Your task to perform on an android device: turn off translation in the chrome app Image 0: 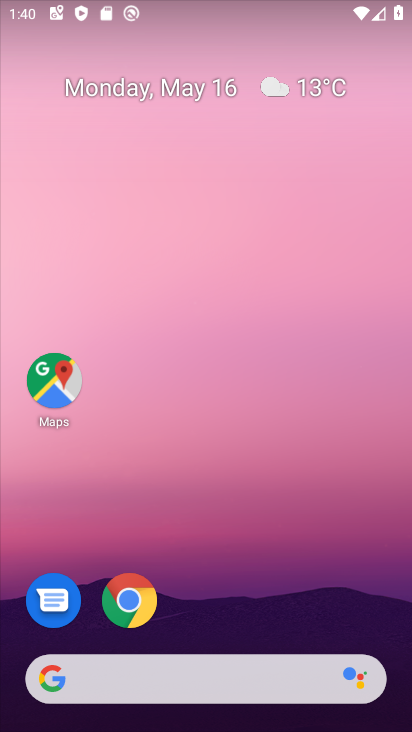
Step 0: click (128, 599)
Your task to perform on an android device: turn off translation in the chrome app Image 1: 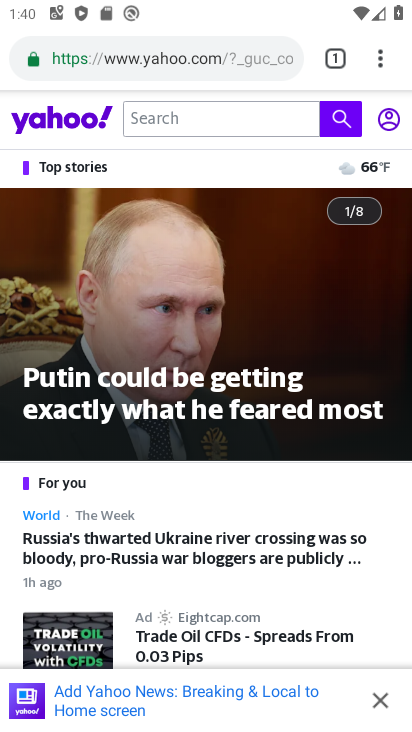
Step 1: click (380, 77)
Your task to perform on an android device: turn off translation in the chrome app Image 2: 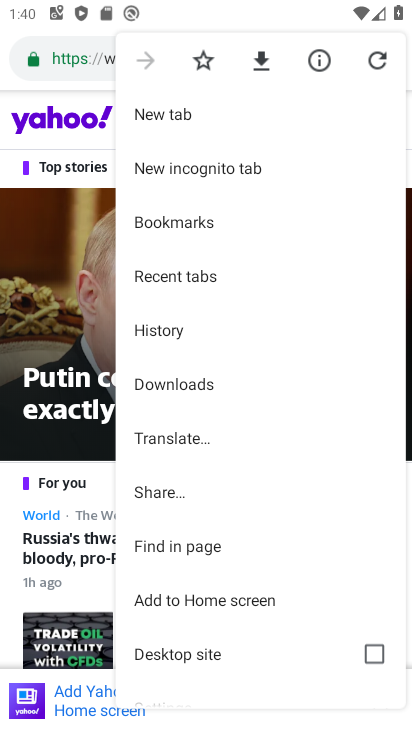
Step 2: drag from (284, 681) to (312, 379)
Your task to perform on an android device: turn off translation in the chrome app Image 3: 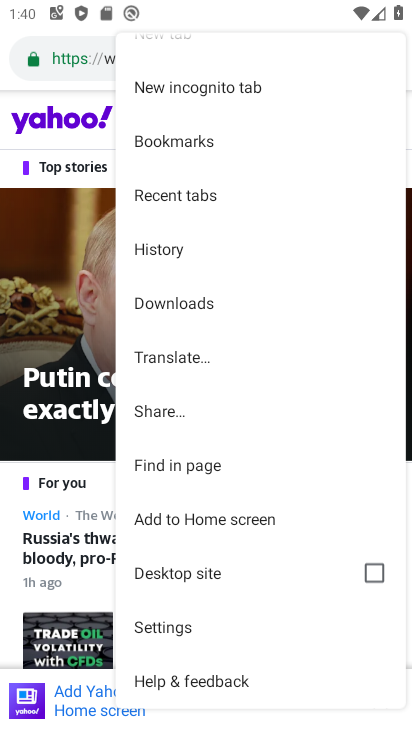
Step 3: click (195, 621)
Your task to perform on an android device: turn off translation in the chrome app Image 4: 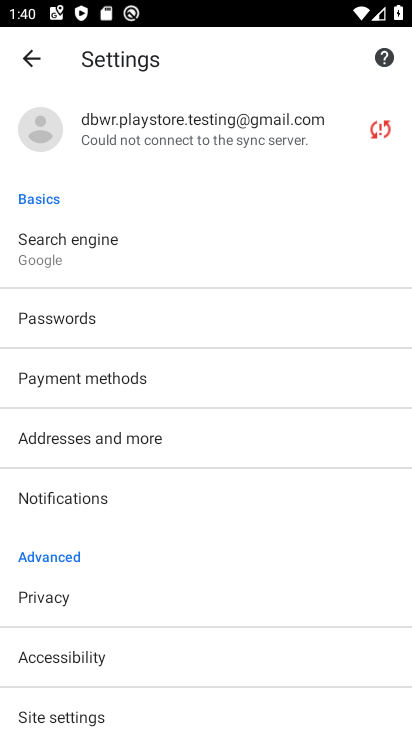
Step 4: drag from (214, 664) to (233, 313)
Your task to perform on an android device: turn off translation in the chrome app Image 5: 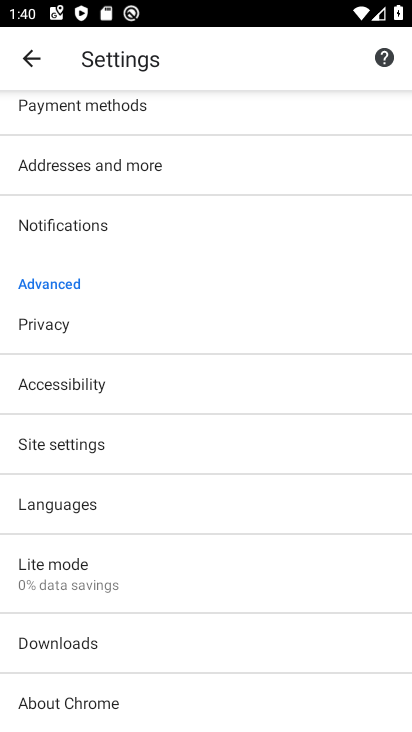
Step 5: click (106, 507)
Your task to perform on an android device: turn off translation in the chrome app Image 6: 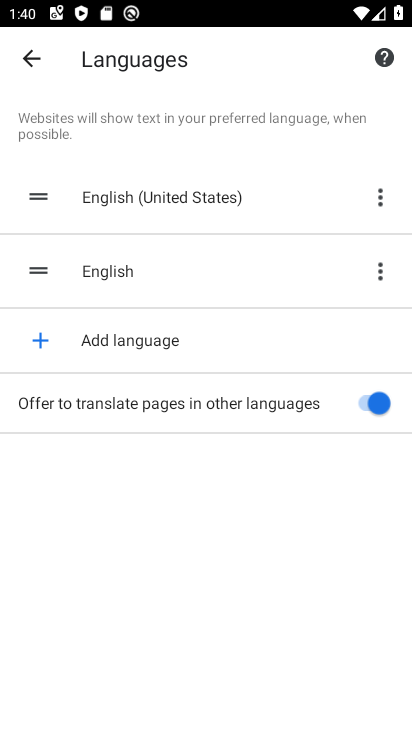
Step 6: click (364, 395)
Your task to perform on an android device: turn off translation in the chrome app Image 7: 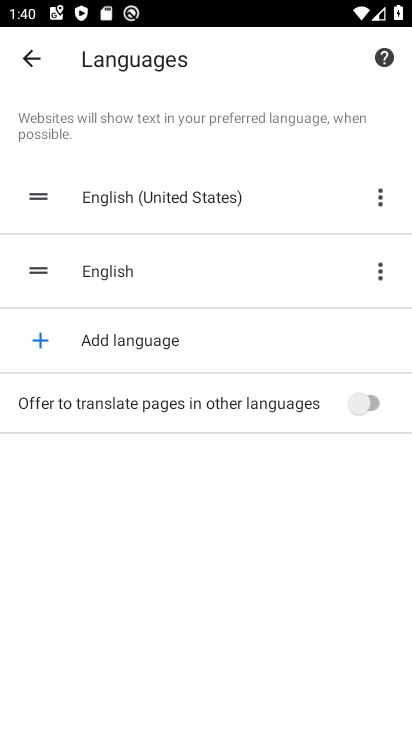
Step 7: task complete